Your task to perform on an android device: Open Reddit.com Image 0: 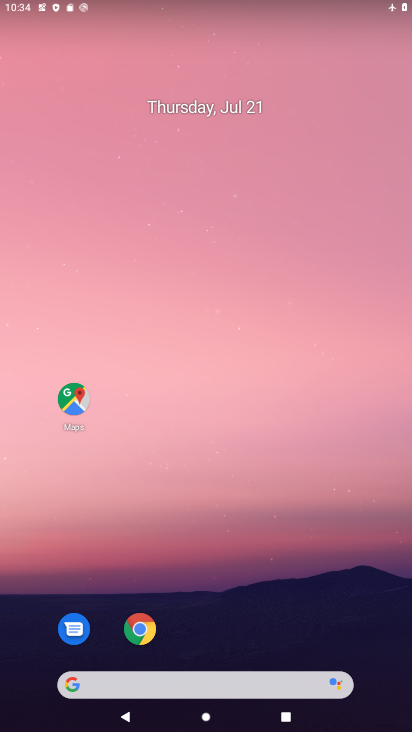
Step 0: click (144, 684)
Your task to perform on an android device: Open Reddit.com Image 1: 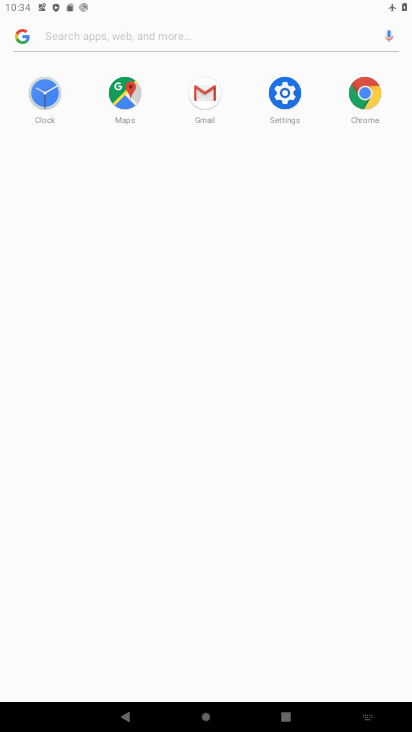
Step 1: type " Reddit.com"
Your task to perform on an android device: Open Reddit.com Image 2: 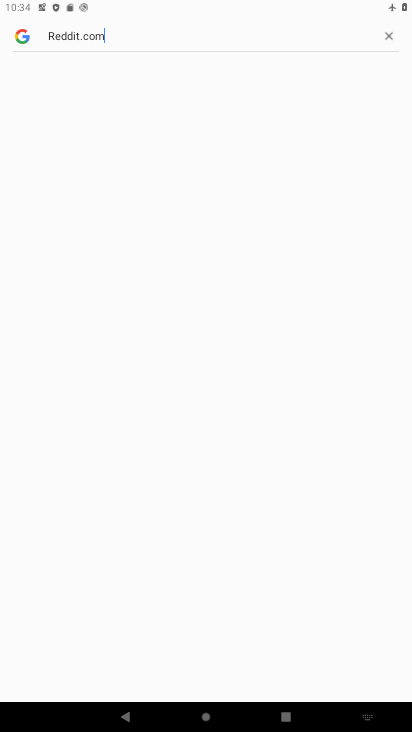
Step 2: press enter
Your task to perform on an android device: Open Reddit.com Image 3: 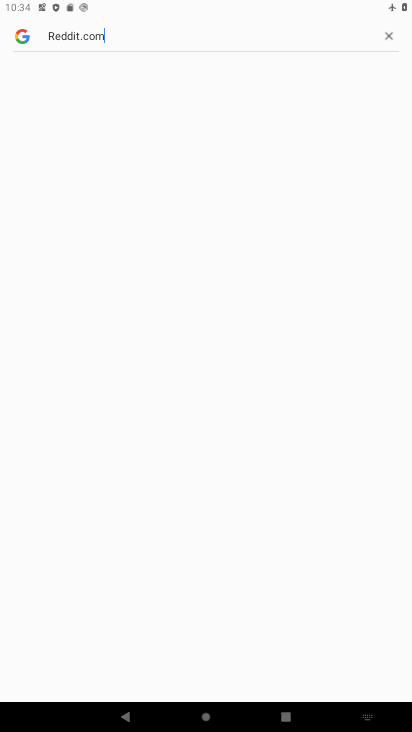
Step 3: type ""
Your task to perform on an android device: Open Reddit.com Image 4: 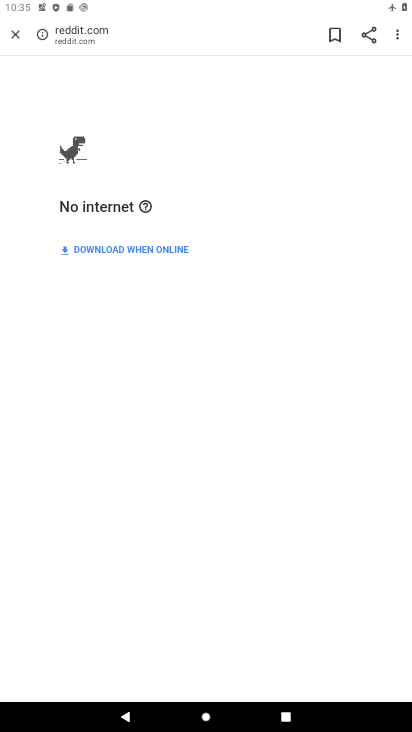
Step 4: drag from (379, 3) to (314, 329)
Your task to perform on an android device: Open Reddit.com Image 5: 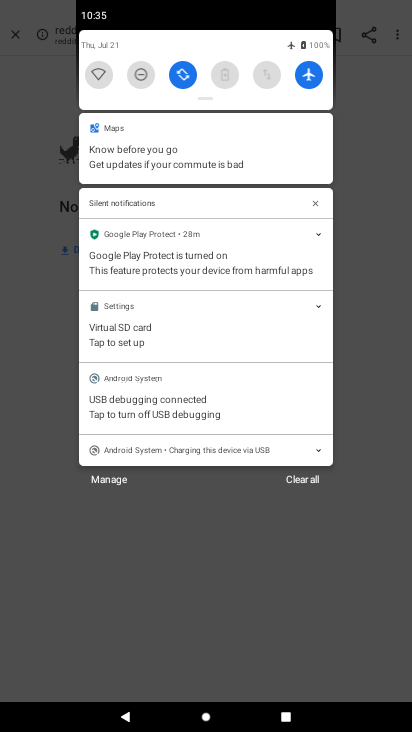
Step 5: click (305, 69)
Your task to perform on an android device: Open Reddit.com Image 6: 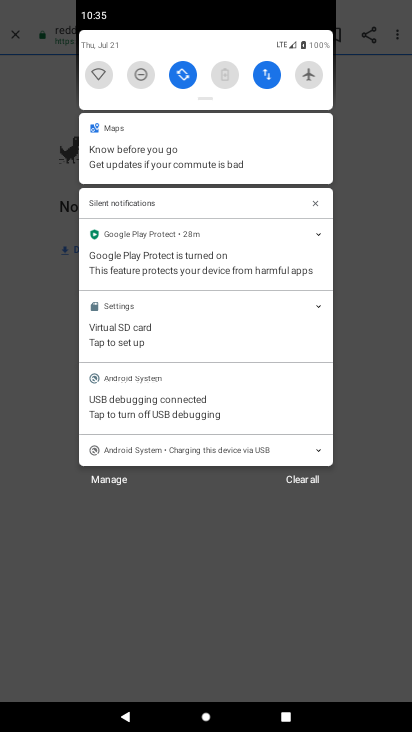
Step 6: click (104, 79)
Your task to perform on an android device: Open Reddit.com Image 7: 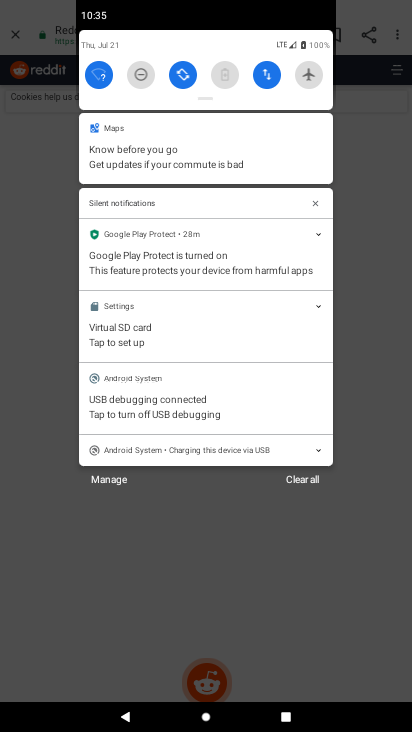
Step 7: click (141, 559)
Your task to perform on an android device: Open Reddit.com Image 8: 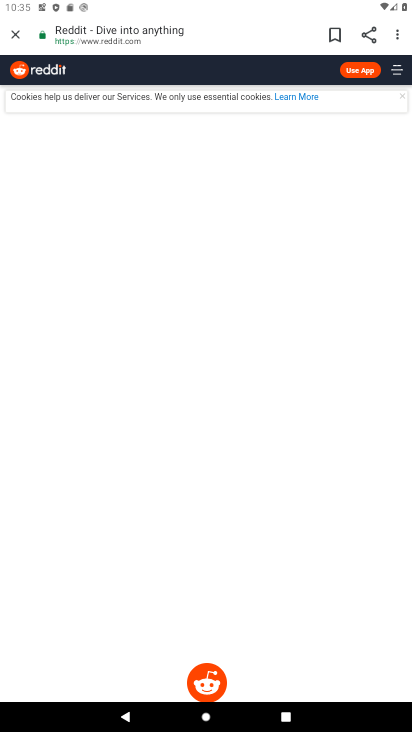
Step 8: task complete